Your task to perform on an android device: turn notification dots on Image 0: 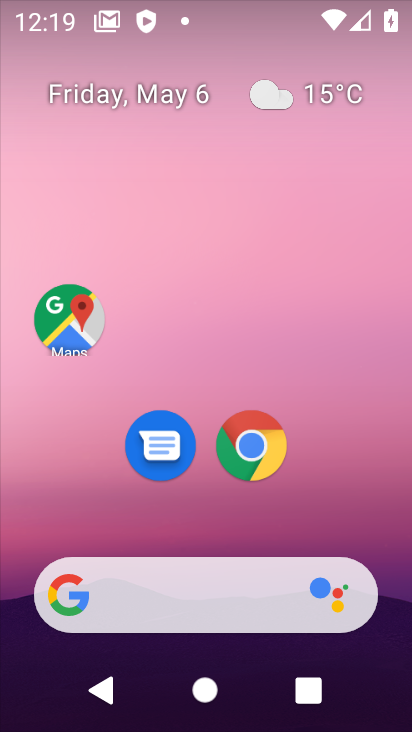
Step 0: drag from (401, 674) to (140, 111)
Your task to perform on an android device: turn notification dots on Image 1: 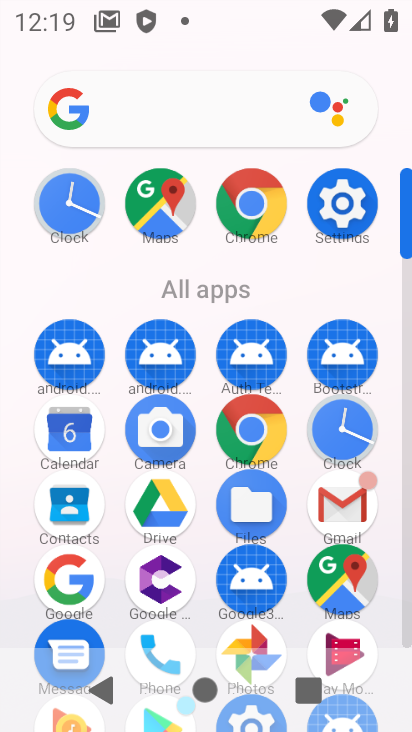
Step 1: click (344, 209)
Your task to perform on an android device: turn notification dots on Image 2: 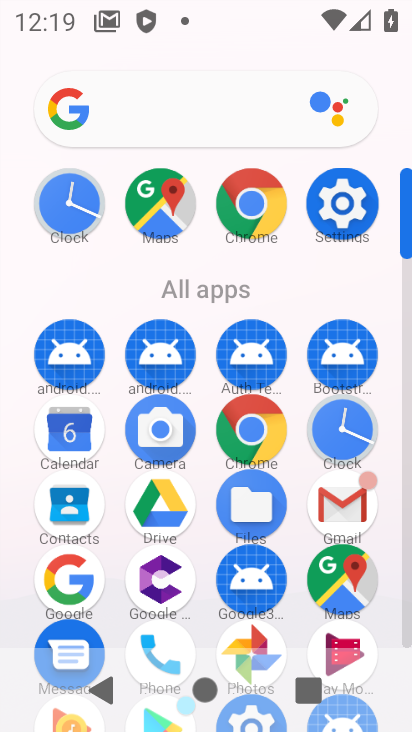
Step 2: click (344, 209)
Your task to perform on an android device: turn notification dots on Image 3: 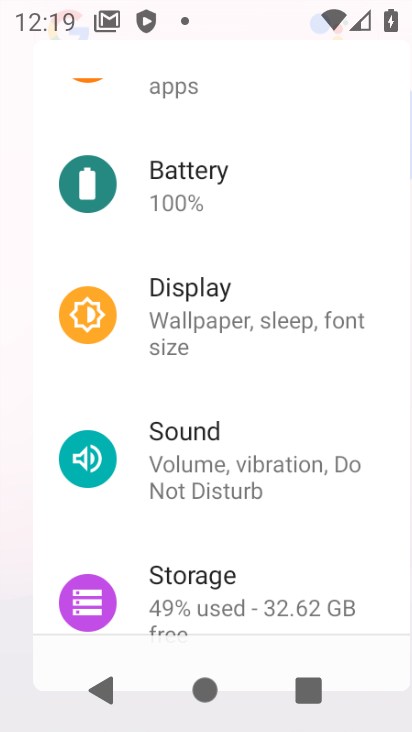
Step 3: click (344, 209)
Your task to perform on an android device: turn notification dots on Image 4: 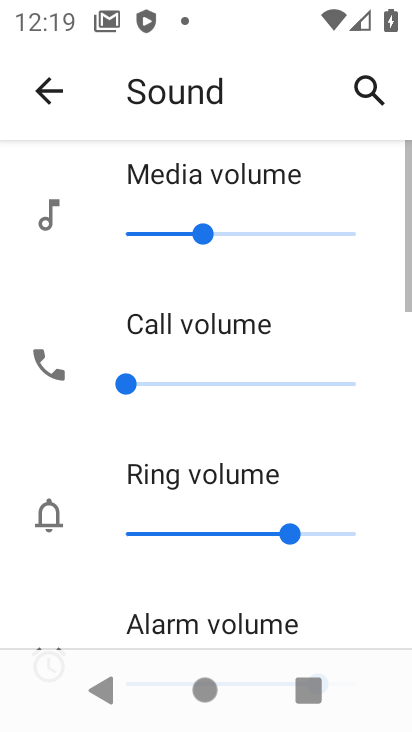
Step 4: click (57, 92)
Your task to perform on an android device: turn notification dots on Image 5: 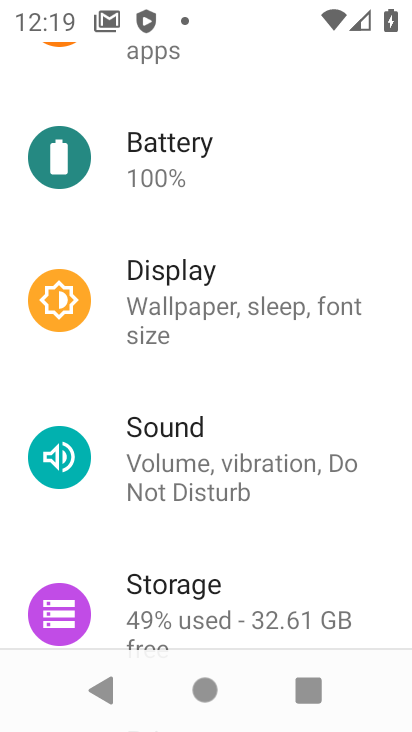
Step 5: drag from (174, 269) to (343, 635)
Your task to perform on an android device: turn notification dots on Image 6: 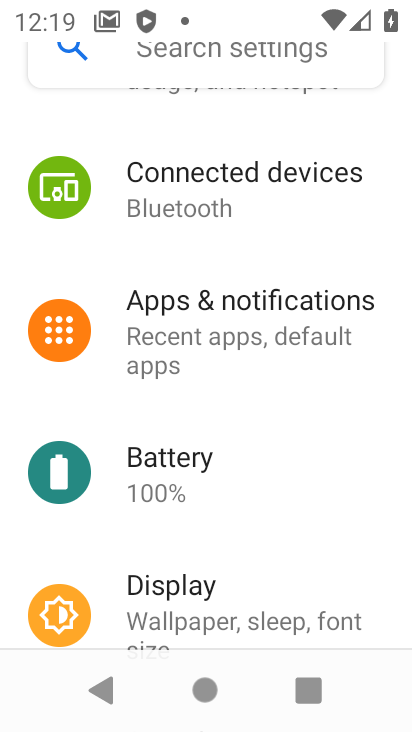
Step 6: drag from (212, 210) to (250, 499)
Your task to perform on an android device: turn notification dots on Image 7: 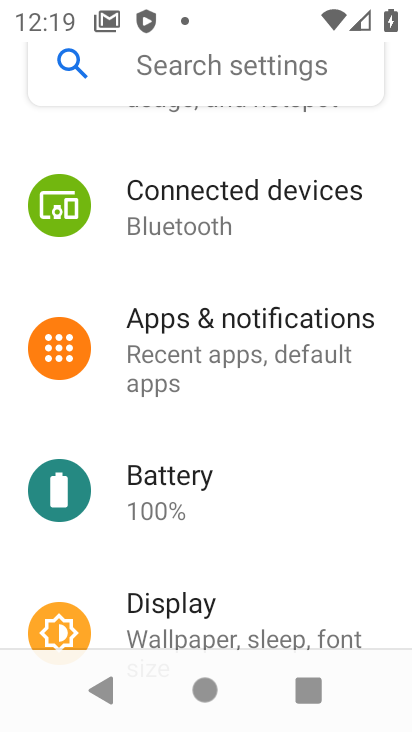
Step 7: drag from (170, 235) to (236, 513)
Your task to perform on an android device: turn notification dots on Image 8: 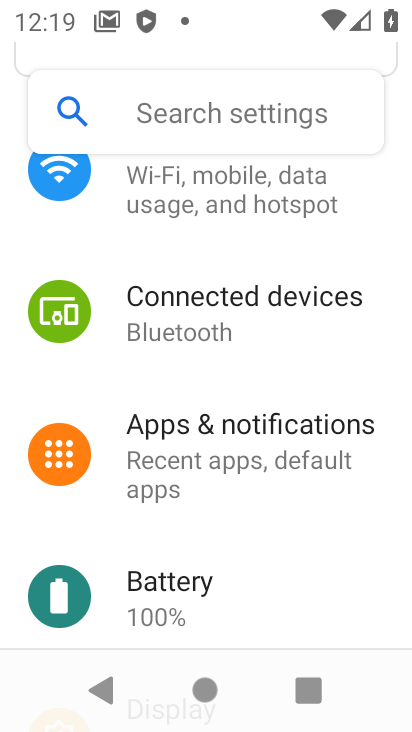
Step 8: drag from (181, 365) to (235, 486)
Your task to perform on an android device: turn notification dots on Image 9: 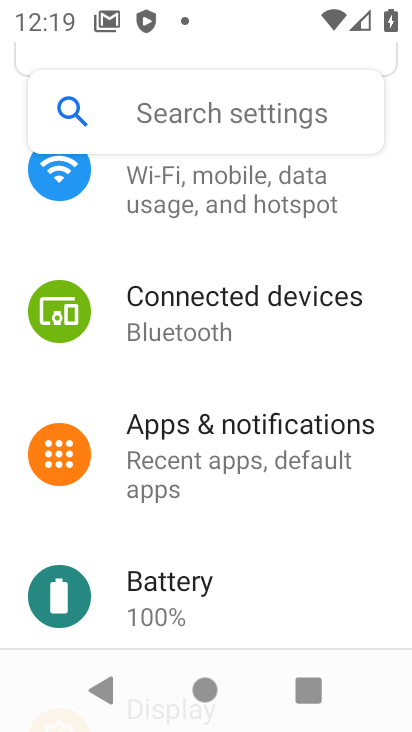
Step 9: click (213, 431)
Your task to perform on an android device: turn notification dots on Image 10: 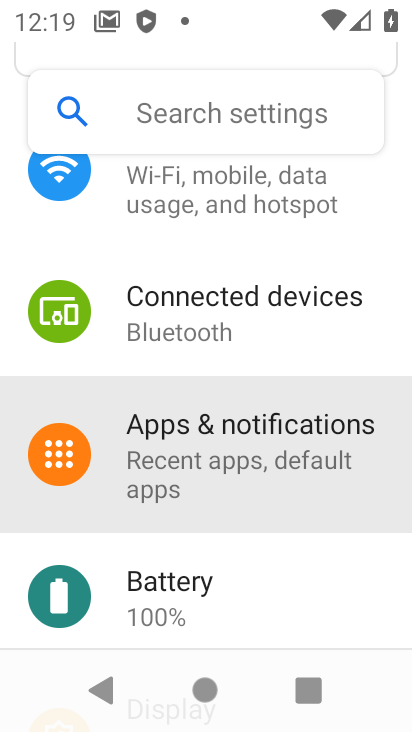
Step 10: click (213, 431)
Your task to perform on an android device: turn notification dots on Image 11: 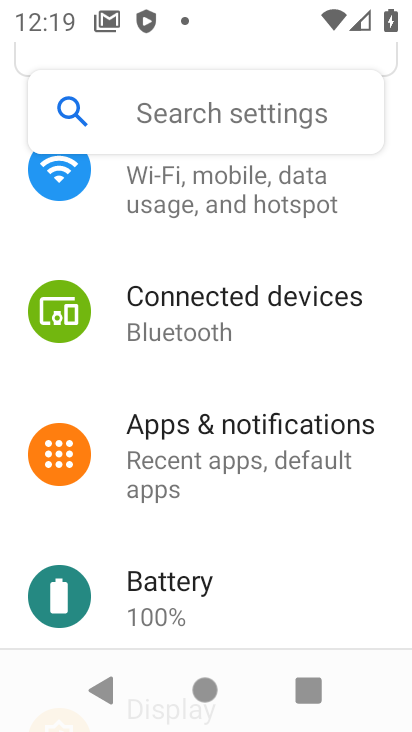
Step 11: click (213, 431)
Your task to perform on an android device: turn notification dots on Image 12: 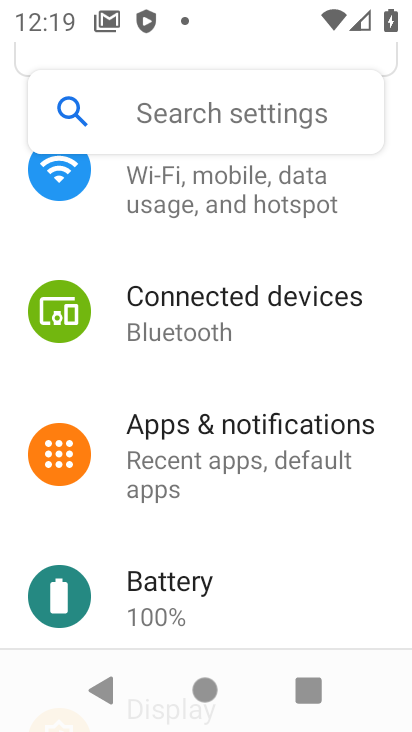
Step 12: click (213, 431)
Your task to perform on an android device: turn notification dots on Image 13: 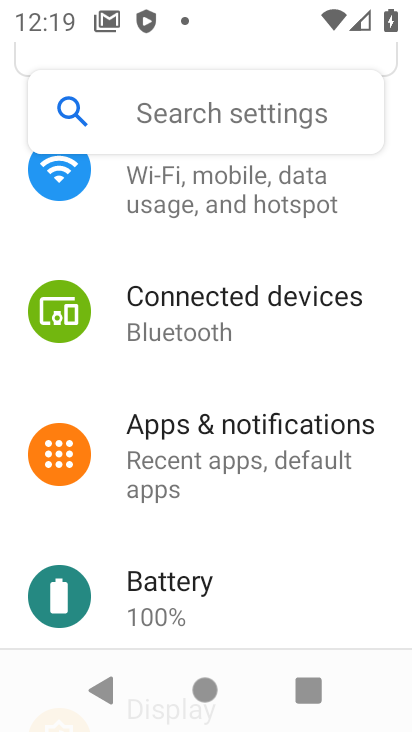
Step 13: click (213, 431)
Your task to perform on an android device: turn notification dots on Image 14: 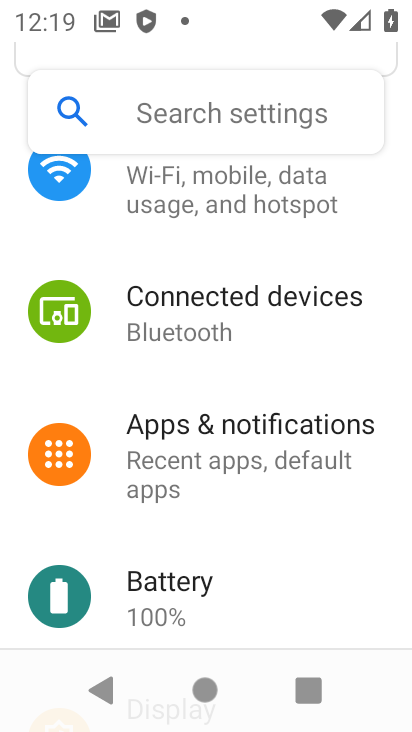
Step 14: click (214, 435)
Your task to perform on an android device: turn notification dots on Image 15: 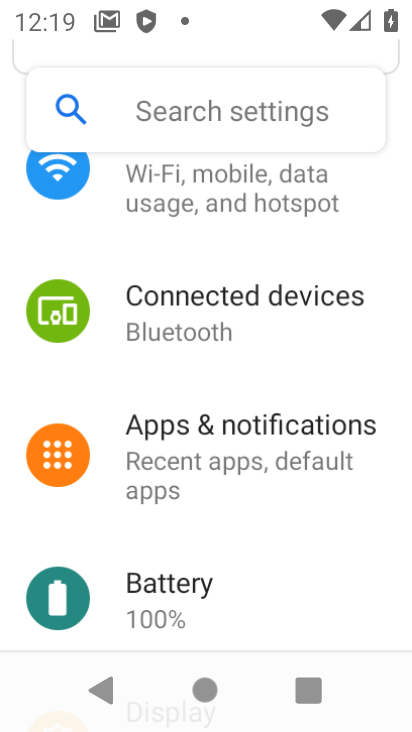
Step 15: click (214, 456)
Your task to perform on an android device: turn notification dots on Image 16: 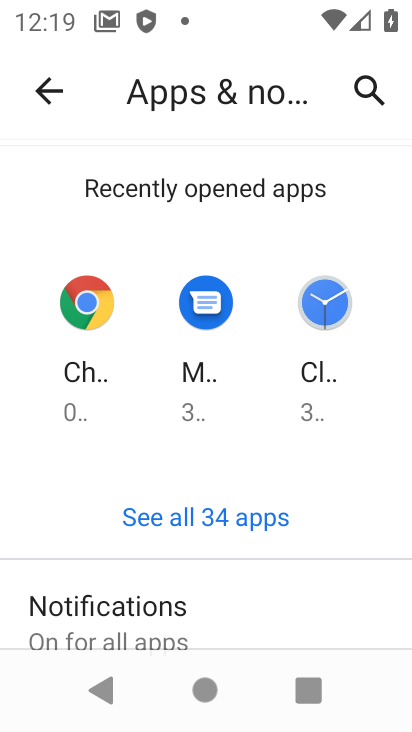
Step 16: drag from (177, 607) to (117, 195)
Your task to perform on an android device: turn notification dots on Image 17: 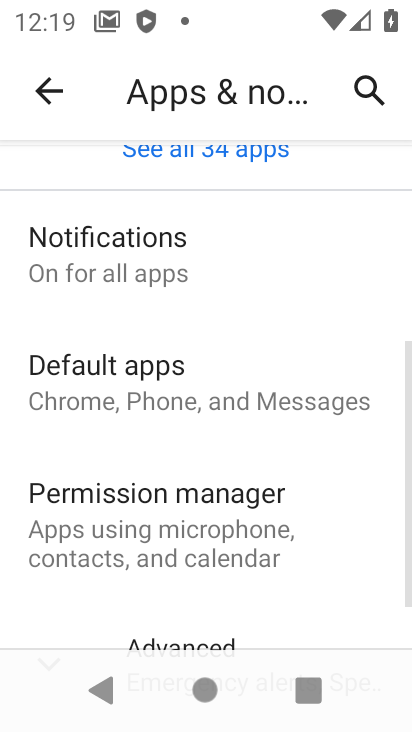
Step 17: drag from (206, 567) to (173, 183)
Your task to perform on an android device: turn notification dots on Image 18: 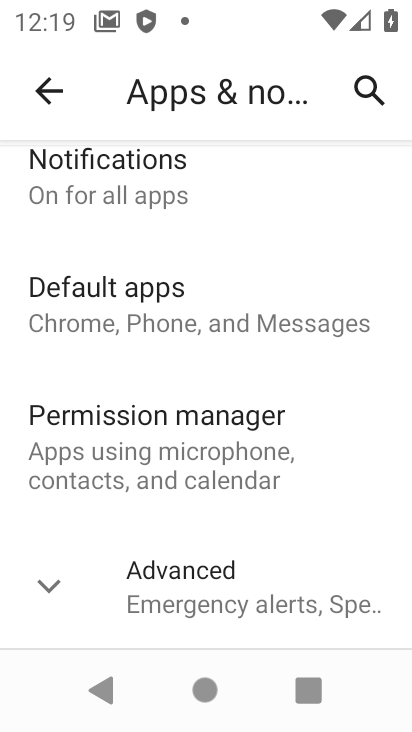
Step 18: click (169, 591)
Your task to perform on an android device: turn notification dots on Image 19: 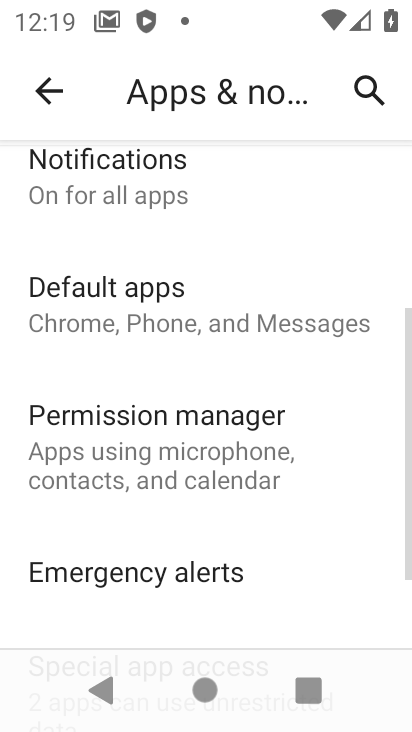
Step 19: drag from (167, 499) to (87, 196)
Your task to perform on an android device: turn notification dots on Image 20: 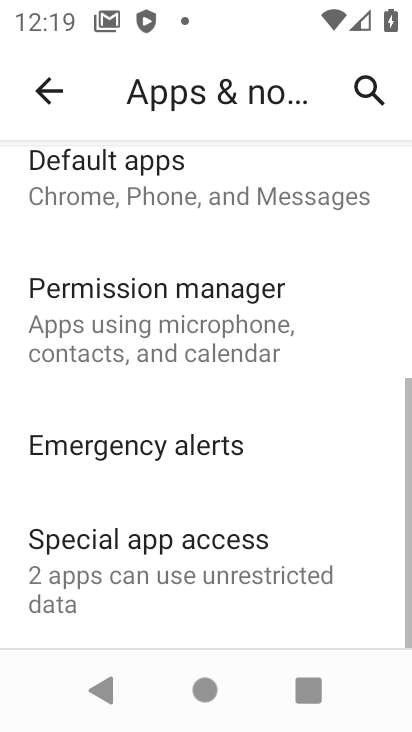
Step 20: drag from (143, 461) to (87, 96)
Your task to perform on an android device: turn notification dots on Image 21: 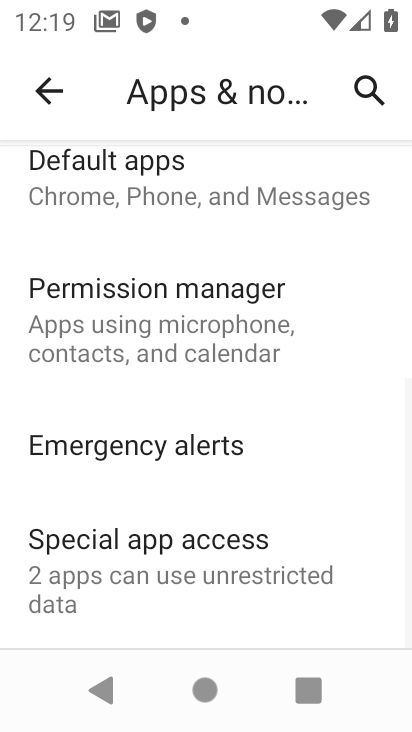
Step 21: drag from (145, 473) to (36, 107)
Your task to perform on an android device: turn notification dots on Image 22: 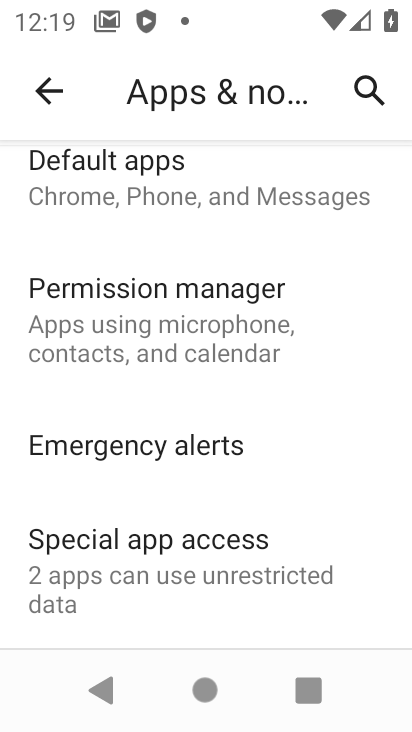
Step 22: drag from (204, 454) to (66, 0)
Your task to perform on an android device: turn notification dots on Image 23: 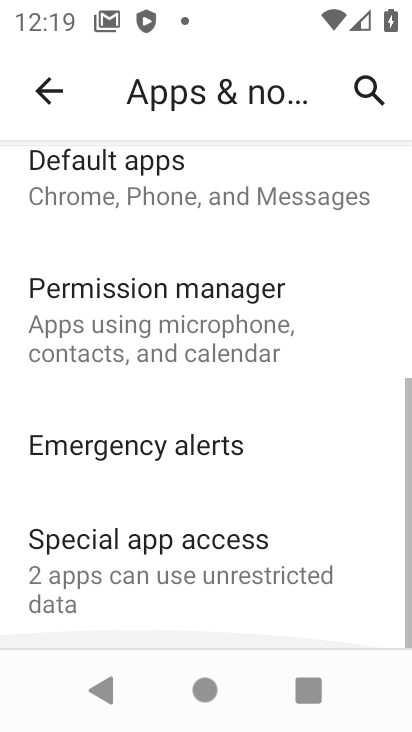
Step 23: drag from (227, 474) to (66, 126)
Your task to perform on an android device: turn notification dots on Image 24: 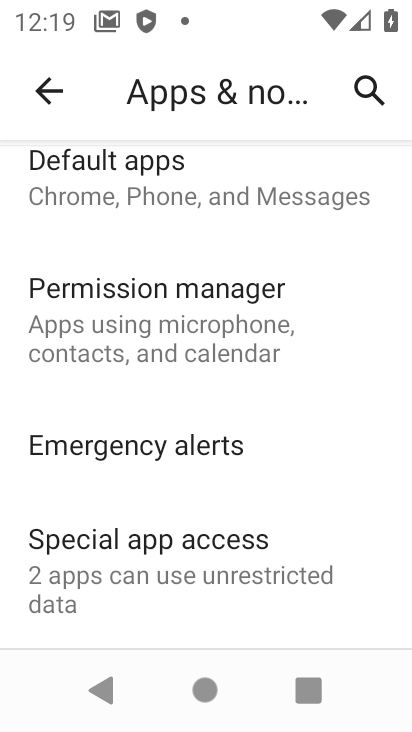
Step 24: drag from (162, 439) to (82, 235)
Your task to perform on an android device: turn notification dots on Image 25: 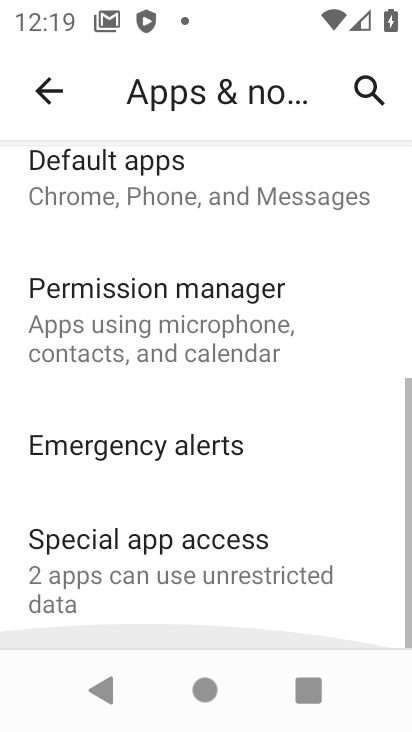
Step 25: drag from (112, 212) to (150, 500)
Your task to perform on an android device: turn notification dots on Image 26: 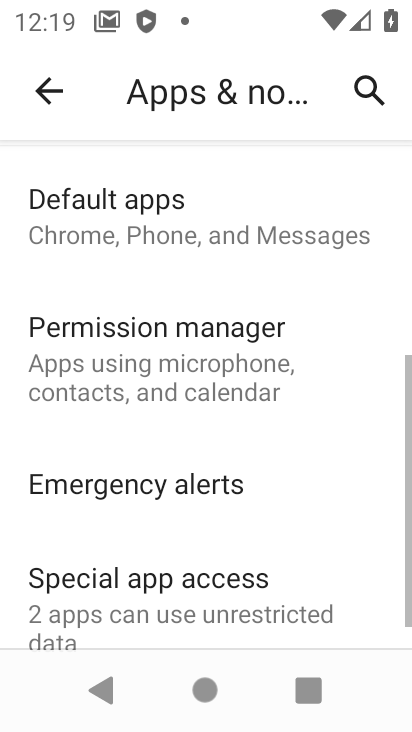
Step 26: drag from (192, 279) to (207, 666)
Your task to perform on an android device: turn notification dots on Image 27: 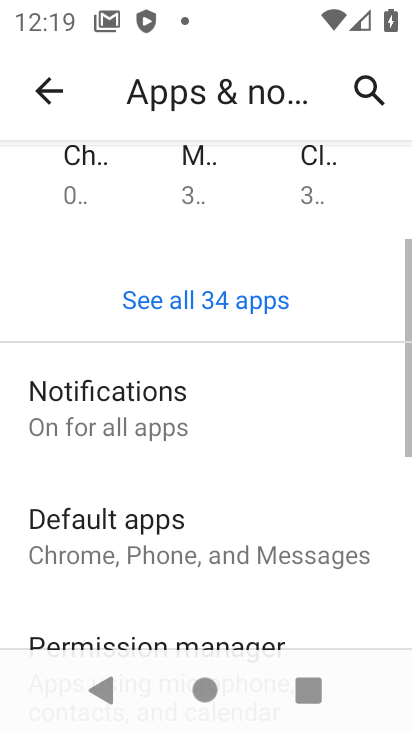
Step 27: drag from (148, 293) to (191, 551)
Your task to perform on an android device: turn notification dots on Image 28: 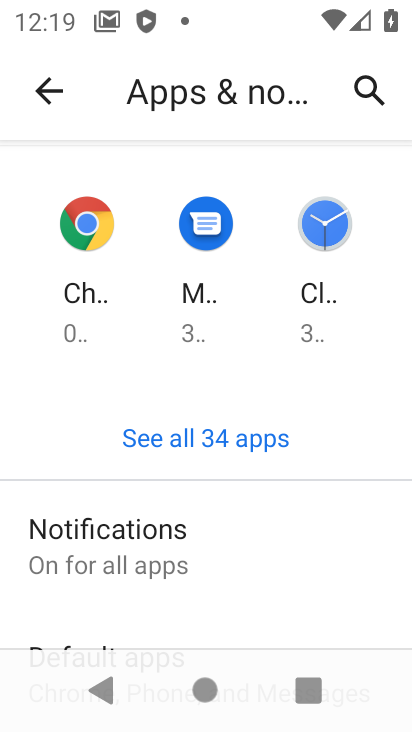
Step 28: click (121, 415)
Your task to perform on an android device: turn notification dots on Image 29: 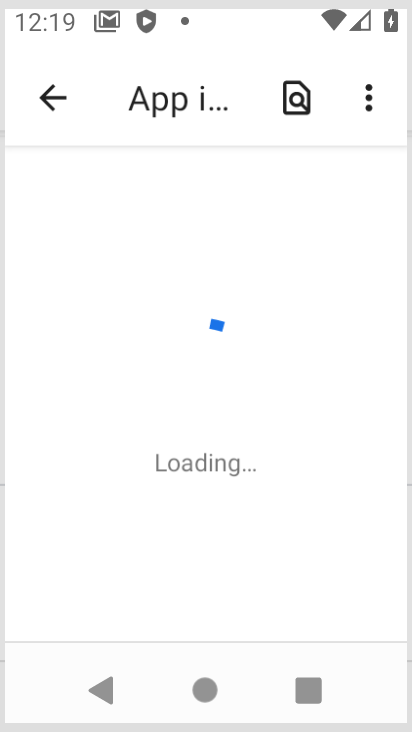
Step 29: click (122, 556)
Your task to perform on an android device: turn notification dots on Image 30: 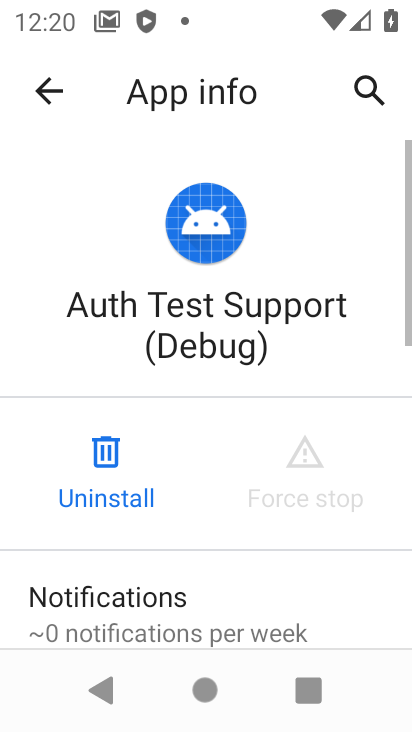
Step 30: click (133, 553)
Your task to perform on an android device: turn notification dots on Image 31: 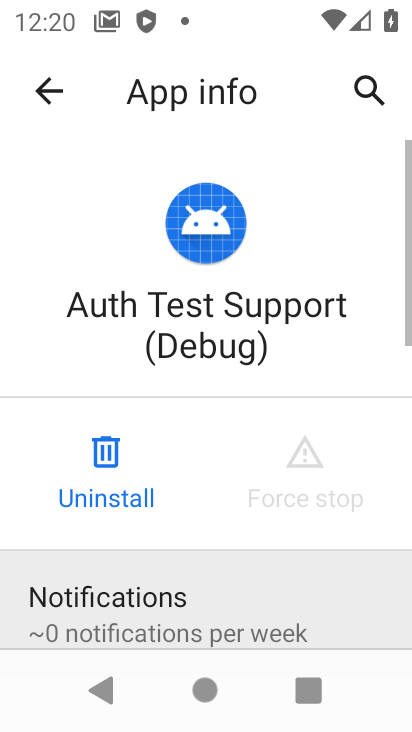
Step 31: click (133, 553)
Your task to perform on an android device: turn notification dots on Image 32: 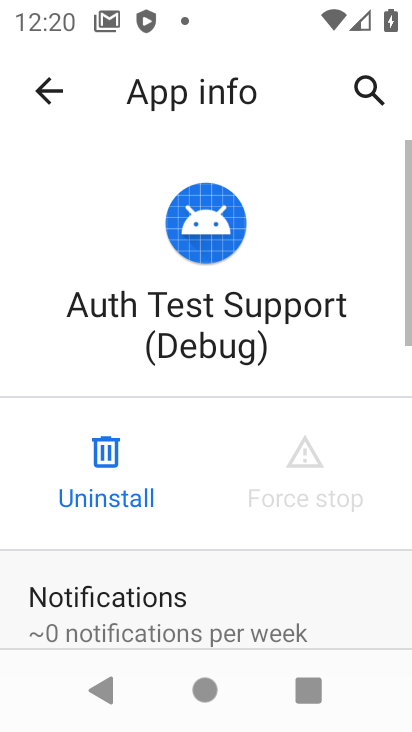
Step 32: click (133, 553)
Your task to perform on an android device: turn notification dots on Image 33: 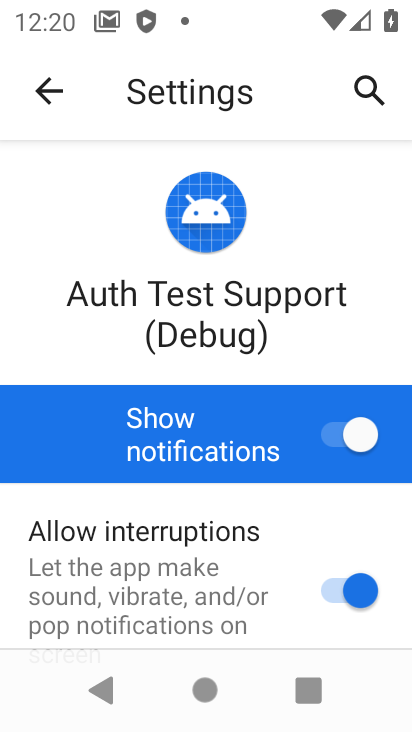
Step 33: click (53, 79)
Your task to perform on an android device: turn notification dots on Image 34: 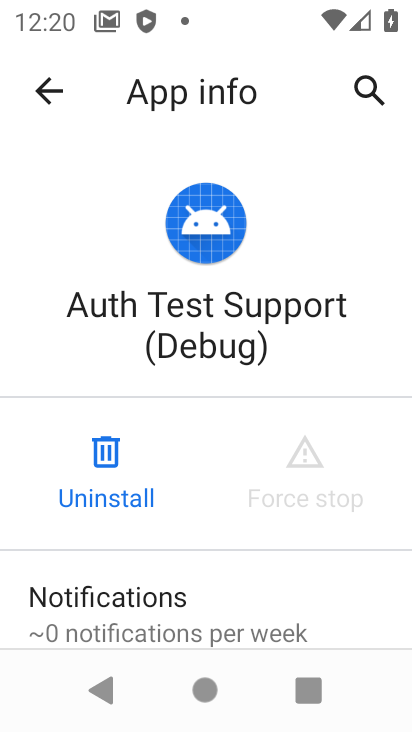
Step 34: drag from (176, 583) to (132, 208)
Your task to perform on an android device: turn notification dots on Image 35: 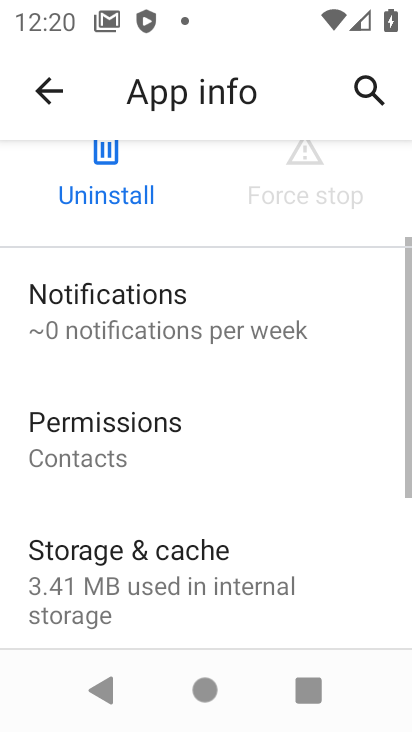
Step 35: click (48, 89)
Your task to perform on an android device: turn notification dots on Image 36: 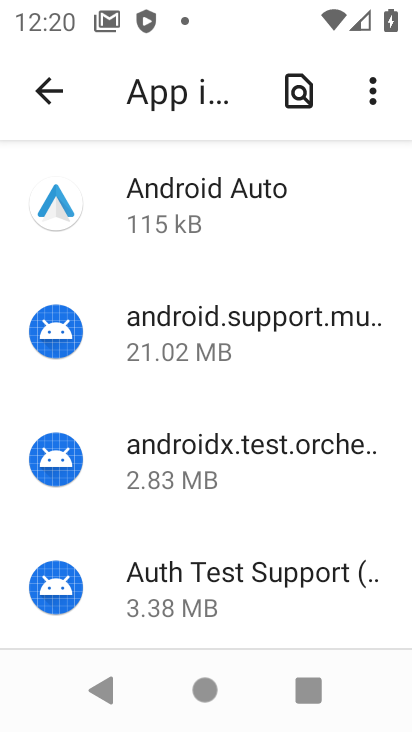
Step 36: click (51, 89)
Your task to perform on an android device: turn notification dots on Image 37: 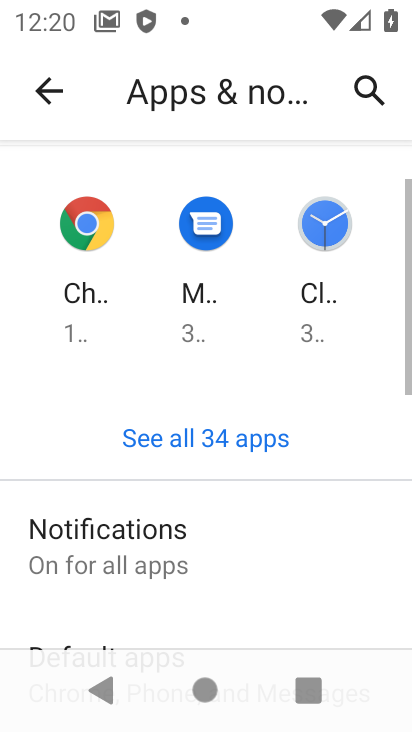
Step 37: click (113, 556)
Your task to perform on an android device: turn notification dots on Image 38: 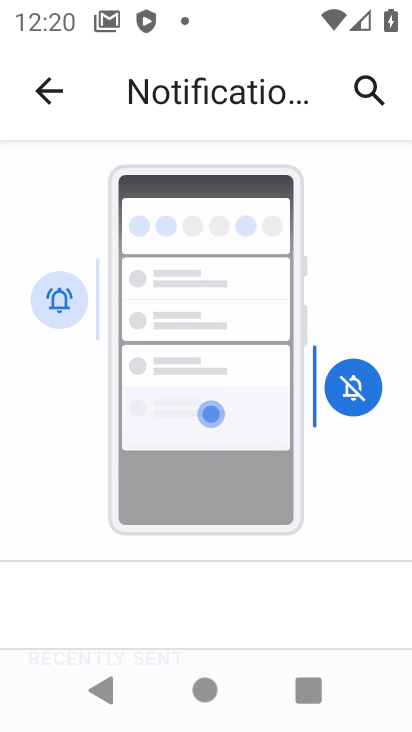
Step 38: drag from (314, 527) to (246, 109)
Your task to perform on an android device: turn notification dots on Image 39: 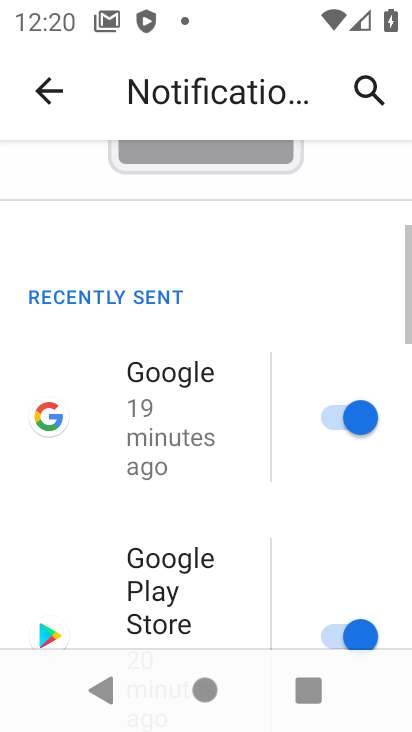
Step 39: drag from (282, 476) to (229, 33)
Your task to perform on an android device: turn notification dots on Image 40: 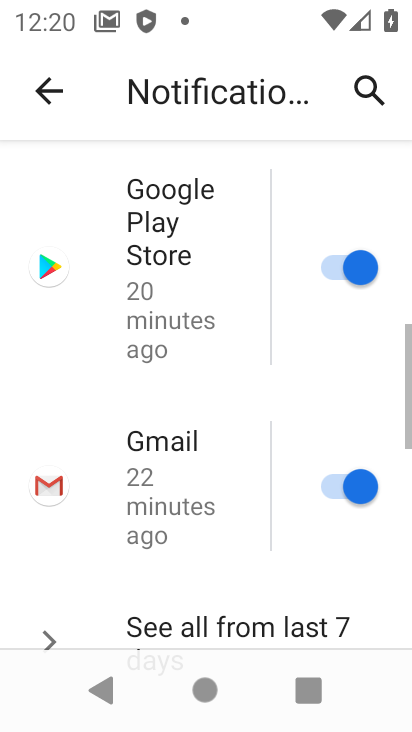
Step 40: drag from (261, 473) to (209, 28)
Your task to perform on an android device: turn notification dots on Image 41: 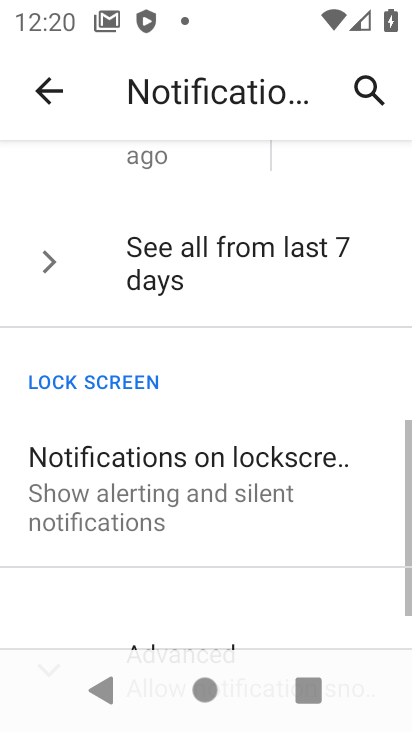
Step 41: drag from (239, 472) to (195, 0)
Your task to perform on an android device: turn notification dots on Image 42: 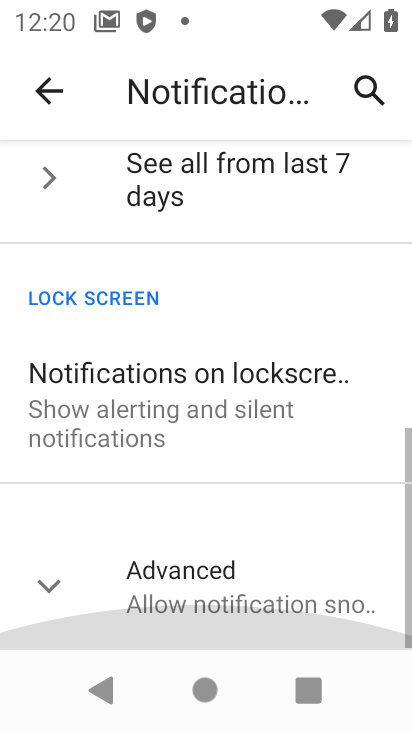
Step 42: drag from (230, 419) to (152, 140)
Your task to perform on an android device: turn notification dots on Image 43: 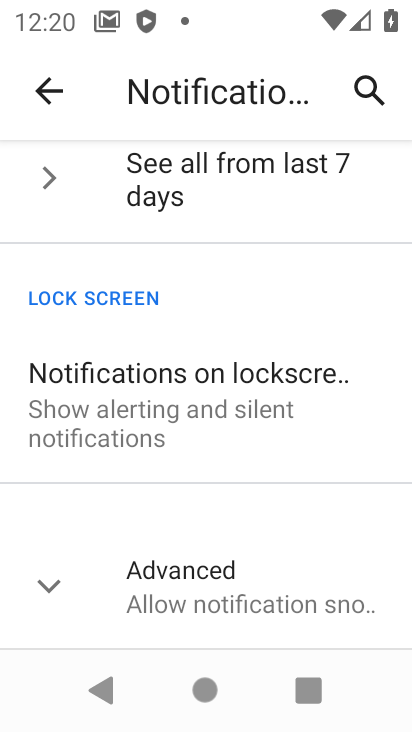
Step 43: click (192, 597)
Your task to perform on an android device: turn notification dots on Image 44: 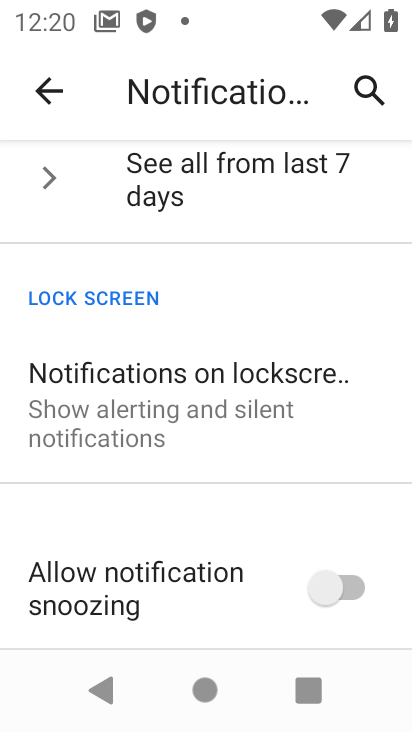
Step 44: drag from (247, 563) to (178, 173)
Your task to perform on an android device: turn notification dots on Image 45: 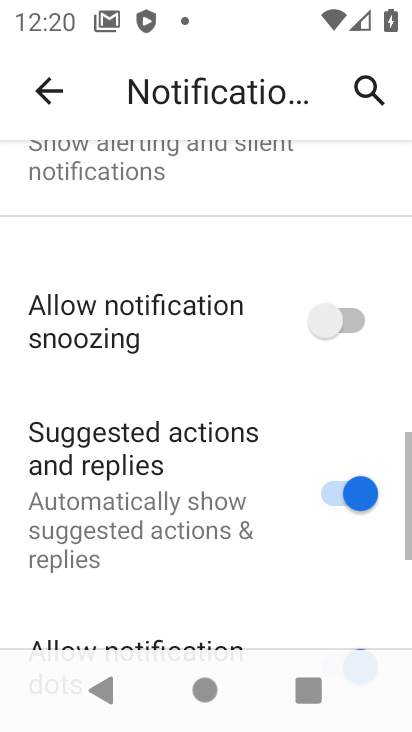
Step 45: drag from (195, 517) to (160, 148)
Your task to perform on an android device: turn notification dots on Image 46: 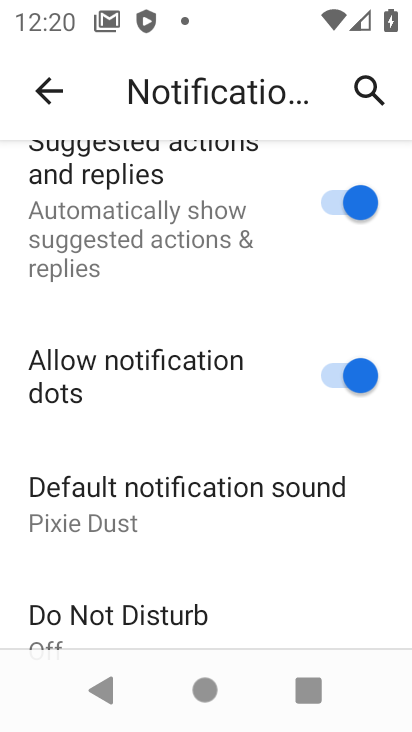
Step 46: click (357, 370)
Your task to perform on an android device: turn notification dots on Image 47: 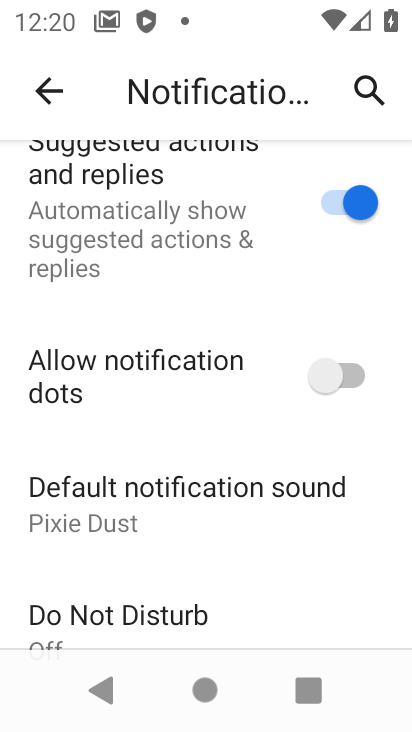
Step 47: click (332, 377)
Your task to perform on an android device: turn notification dots on Image 48: 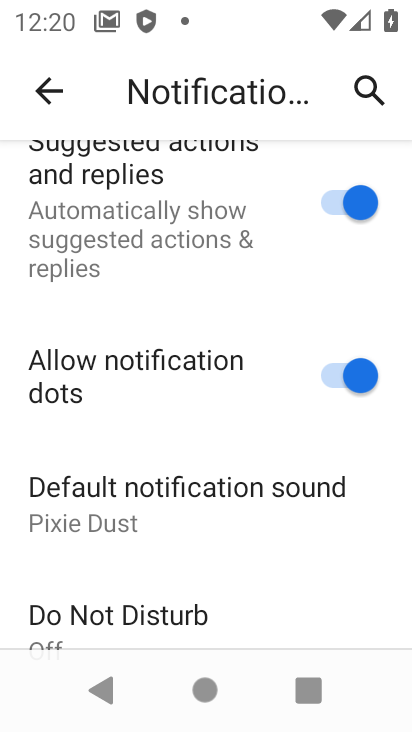
Step 48: task complete